Your task to perform on an android device: toggle pop-ups in chrome Image 0: 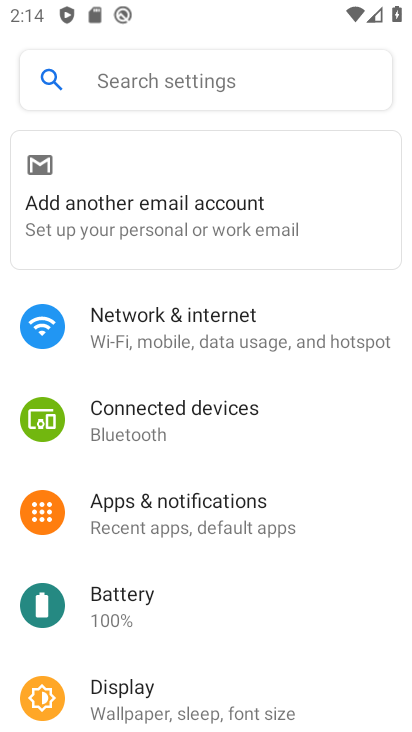
Step 0: press back button
Your task to perform on an android device: toggle pop-ups in chrome Image 1: 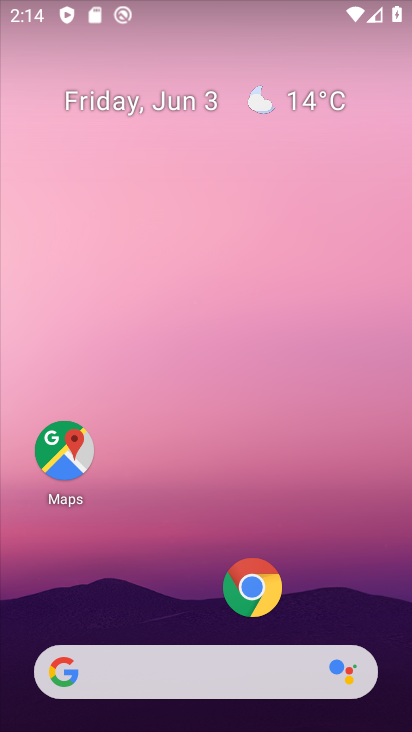
Step 1: click (257, 603)
Your task to perform on an android device: toggle pop-ups in chrome Image 2: 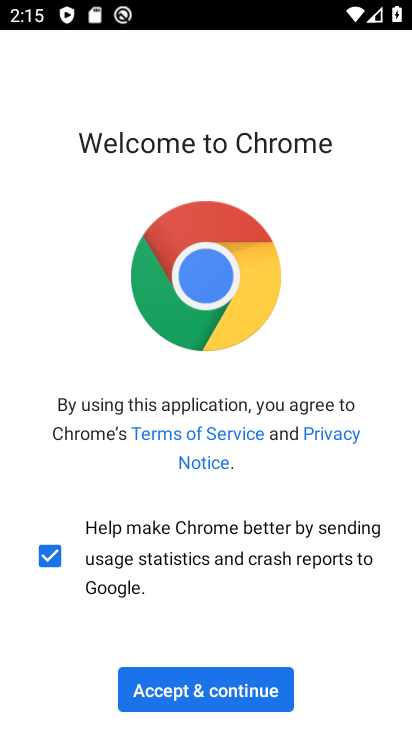
Step 2: click (199, 687)
Your task to perform on an android device: toggle pop-ups in chrome Image 3: 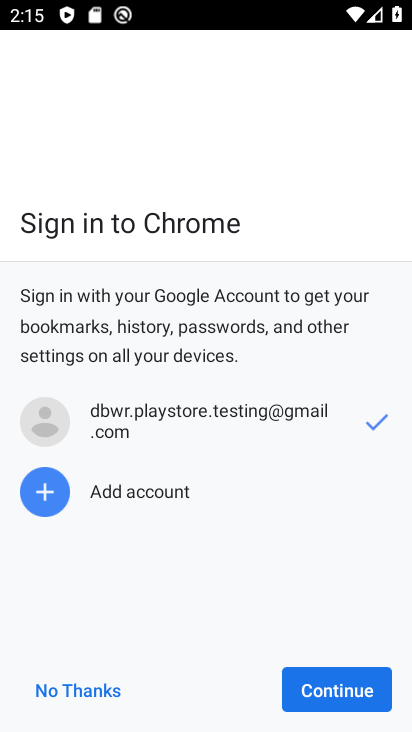
Step 3: click (328, 683)
Your task to perform on an android device: toggle pop-ups in chrome Image 4: 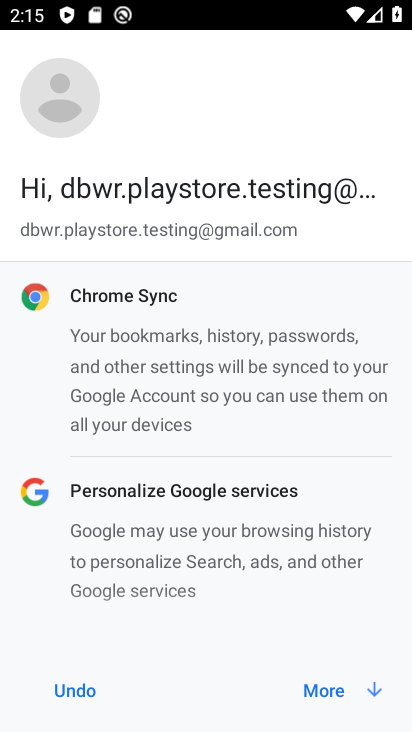
Step 4: click (325, 687)
Your task to perform on an android device: toggle pop-ups in chrome Image 5: 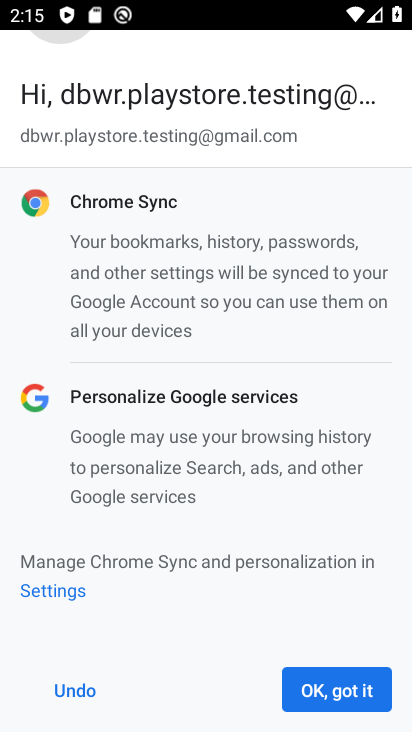
Step 5: click (321, 693)
Your task to perform on an android device: toggle pop-ups in chrome Image 6: 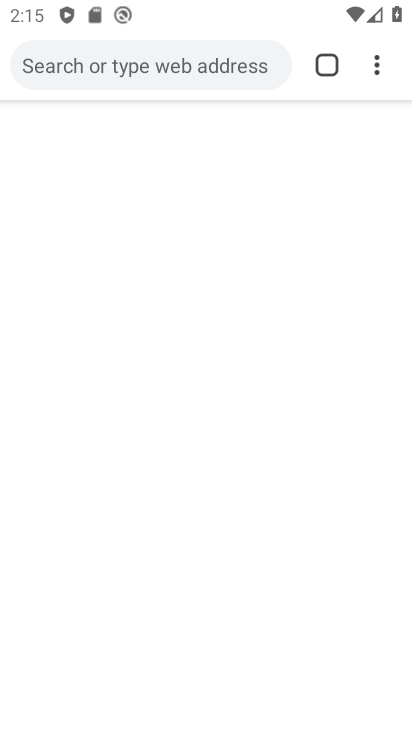
Step 6: drag from (376, 71) to (157, 554)
Your task to perform on an android device: toggle pop-ups in chrome Image 7: 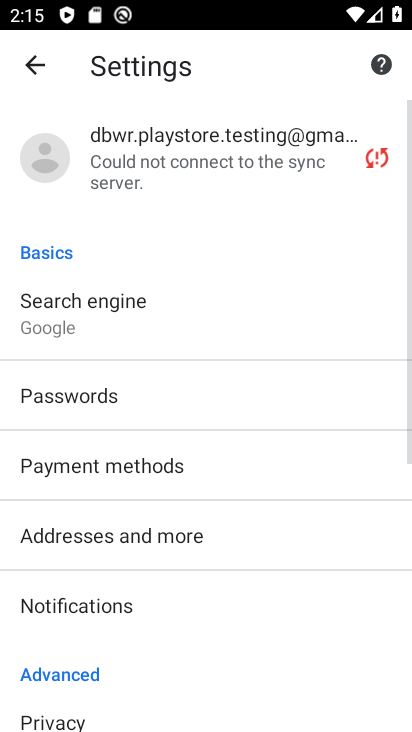
Step 7: drag from (115, 669) to (215, 183)
Your task to perform on an android device: toggle pop-ups in chrome Image 8: 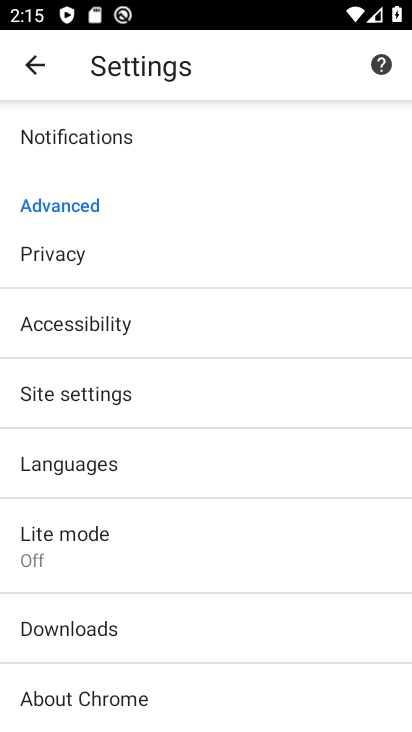
Step 8: click (88, 398)
Your task to perform on an android device: toggle pop-ups in chrome Image 9: 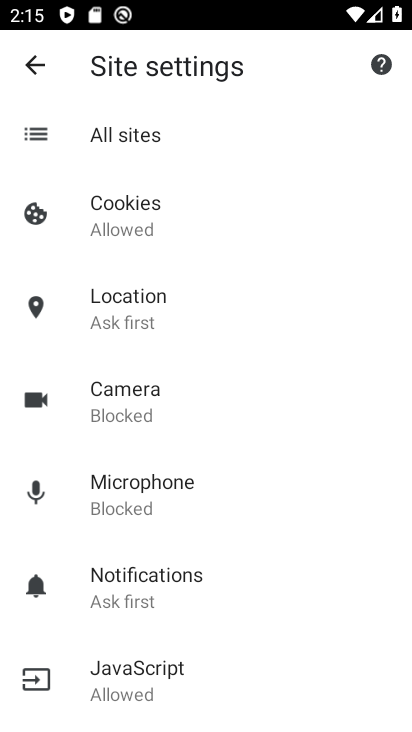
Step 9: drag from (133, 690) to (218, 232)
Your task to perform on an android device: toggle pop-ups in chrome Image 10: 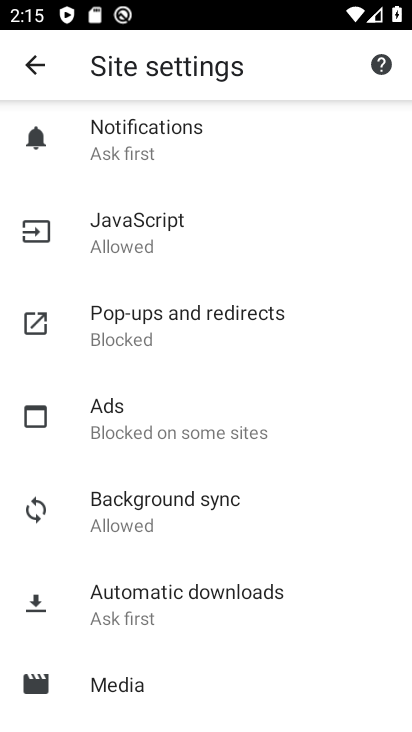
Step 10: click (154, 340)
Your task to perform on an android device: toggle pop-ups in chrome Image 11: 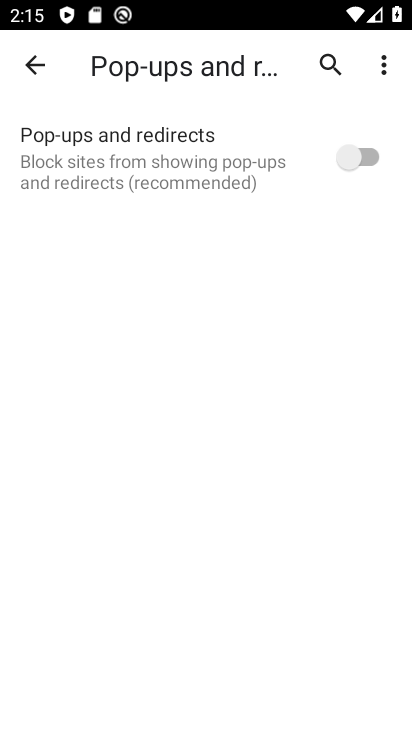
Step 11: click (369, 154)
Your task to perform on an android device: toggle pop-ups in chrome Image 12: 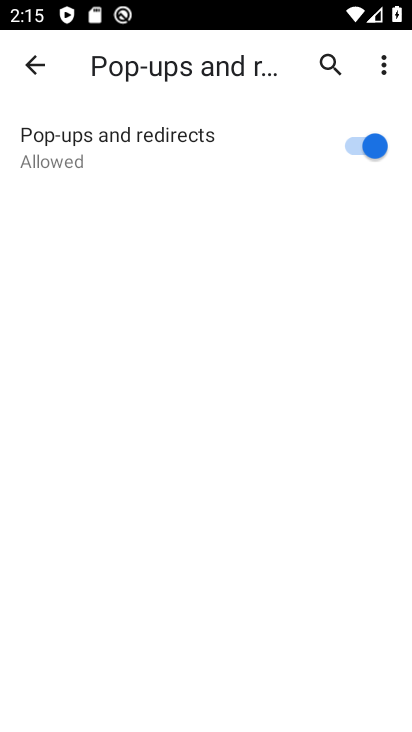
Step 12: task complete